Your task to perform on an android device: Search for sushi restaurants on Maps Image 0: 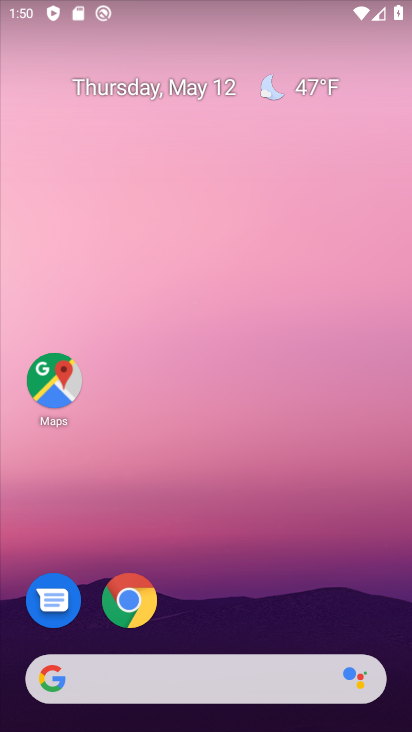
Step 0: click (46, 396)
Your task to perform on an android device: Search for sushi restaurants on Maps Image 1: 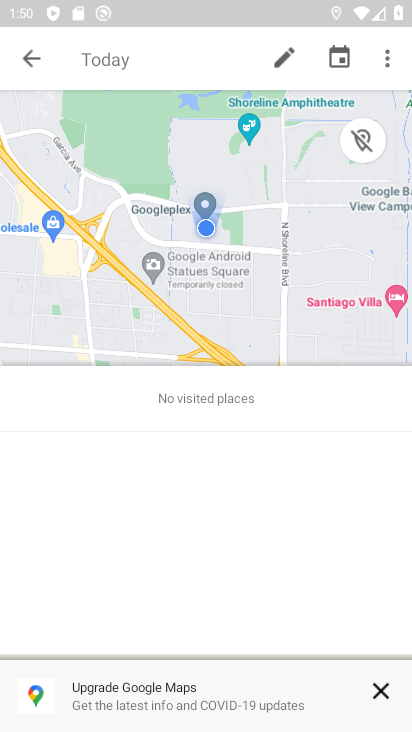
Step 1: click (143, 60)
Your task to perform on an android device: Search for sushi restaurants on Maps Image 2: 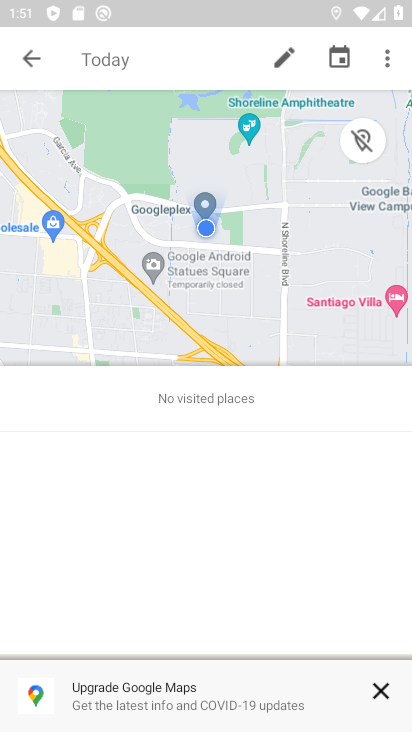
Step 2: click (40, 61)
Your task to perform on an android device: Search for sushi restaurants on Maps Image 3: 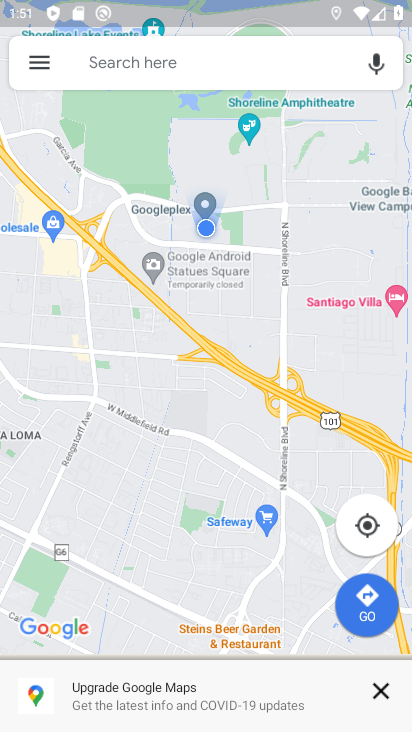
Step 3: click (95, 59)
Your task to perform on an android device: Search for sushi restaurants on Maps Image 4: 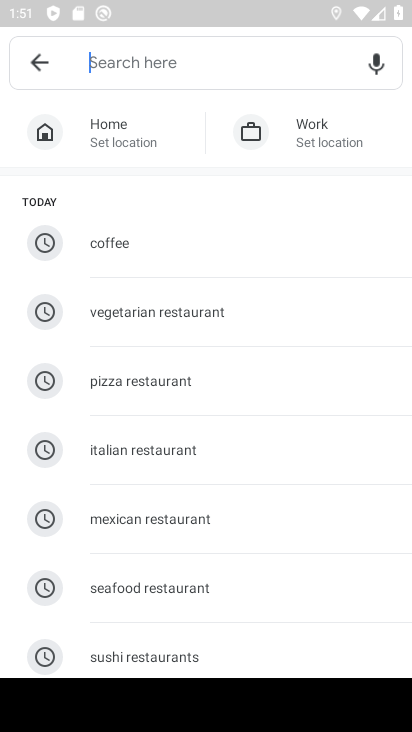
Step 4: click (188, 662)
Your task to perform on an android device: Search for sushi restaurants on Maps Image 5: 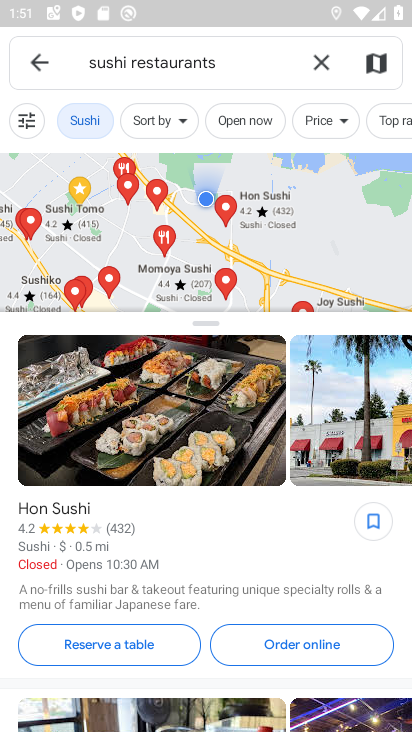
Step 5: task complete